Your task to perform on an android device: find photos in the google photos app Image 0: 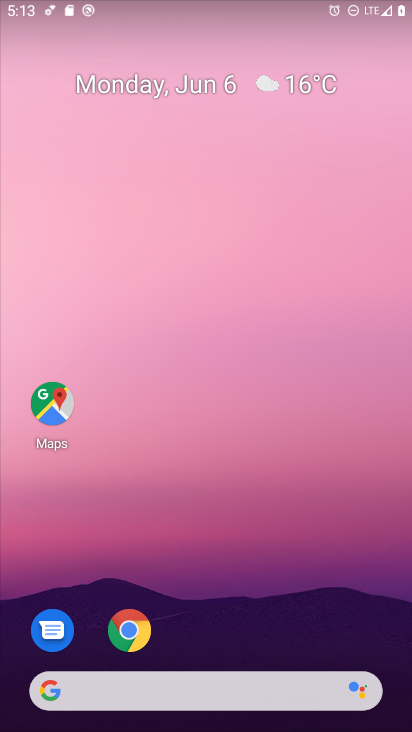
Step 0: drag from (194, 338) to (68, 16)
Your task to perform on an android device: find photos in the google photos app Image 1: 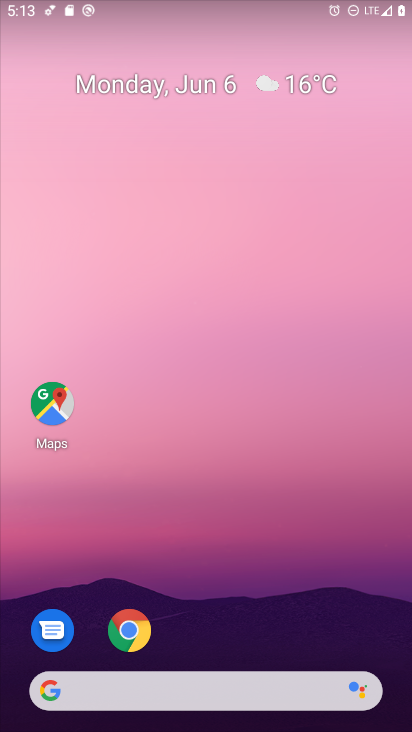
Step 1: drag from (251, 624) to (165, 27)
Your task to perform on an android device: find photos in the google photos app Image 2: 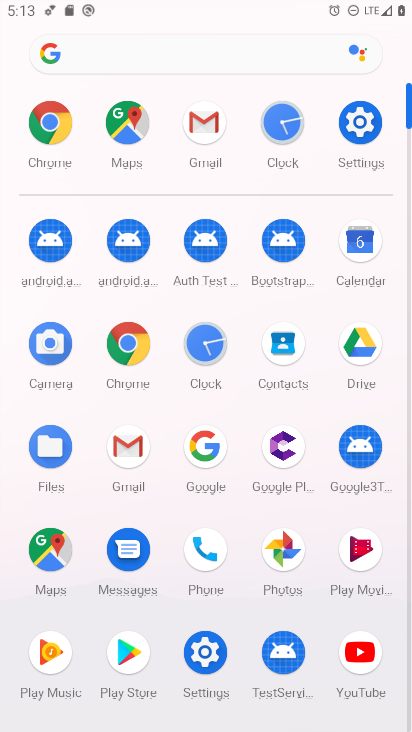
Step 2: click (288, 553)
Your task to perform on an android device: find photos in the google photos app Image 3: 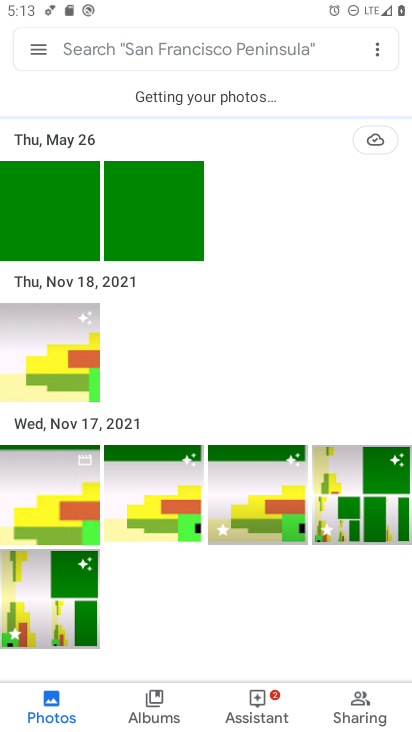
Step 3: task complete